Your task to perform on an android device: Open sound settings Image 0: 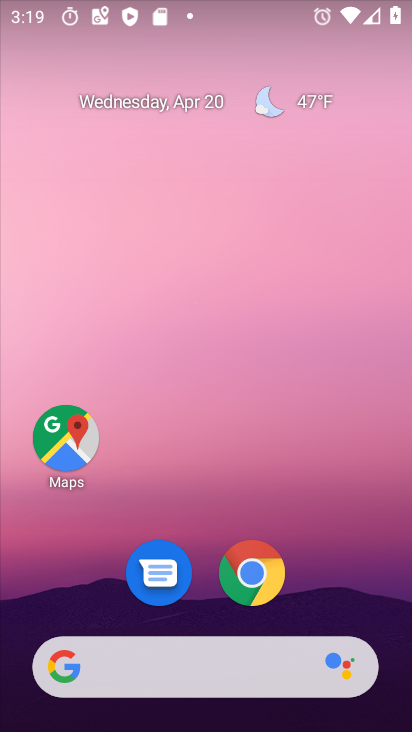
Step 0: drag from (196, 722) to (195, 135)
Your task to perform on an android device: Open sound settings Image 1: 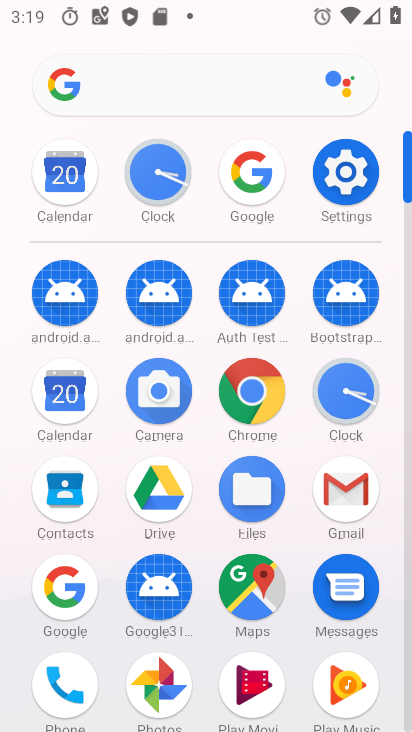
Step 1: click (350, 167)
Your task to perform on an android device: Open sound settings Image 2: 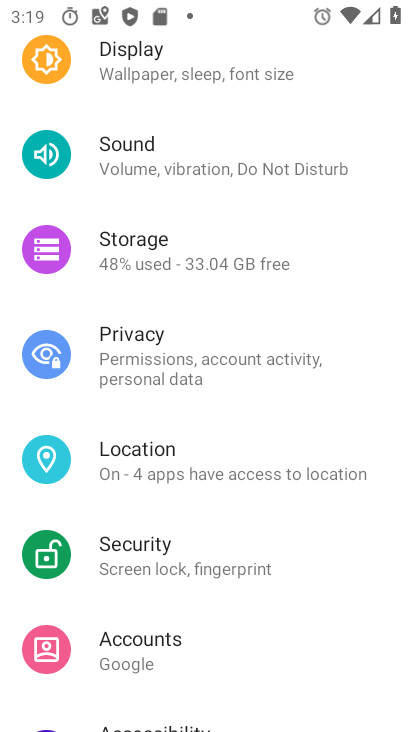
Step 2: click (132, 158)
Your task to perform on an android device: Open sound settings Image 3: 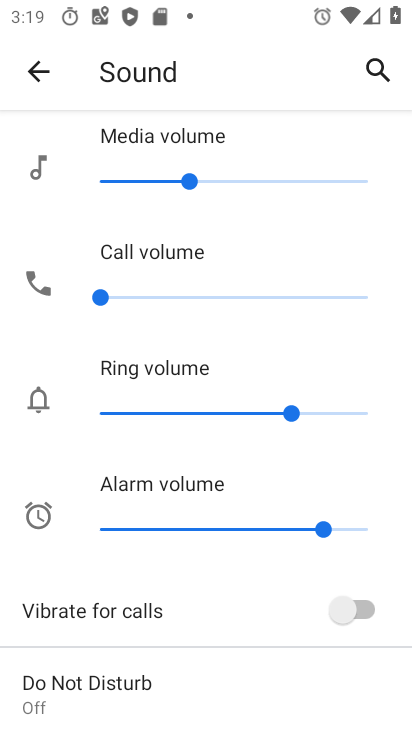
Step 3: task complete